Your task to perform on an android device: Go to accessibility settings Image 0: 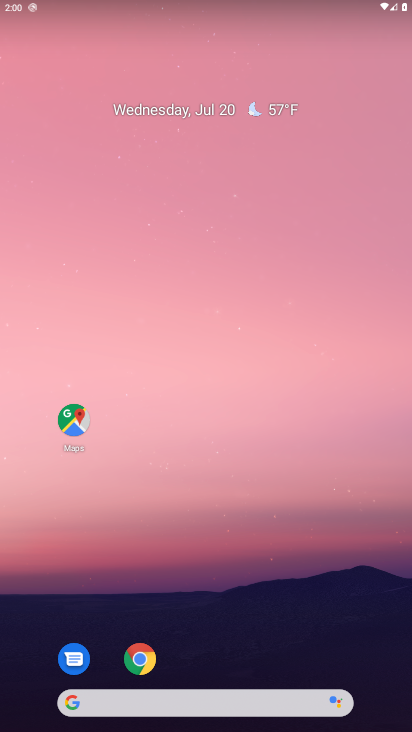
Step 0: drag from (49, 685) to (123, 127)
Your task to perform on an android device: Go to accessibility settings Image 1: 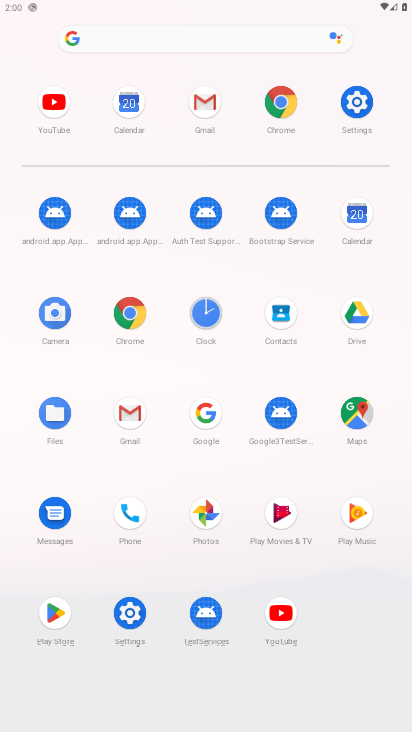
Step 1: click (135, 618)
Your task to perform on an android device: Go to accessibility settings Image 2: 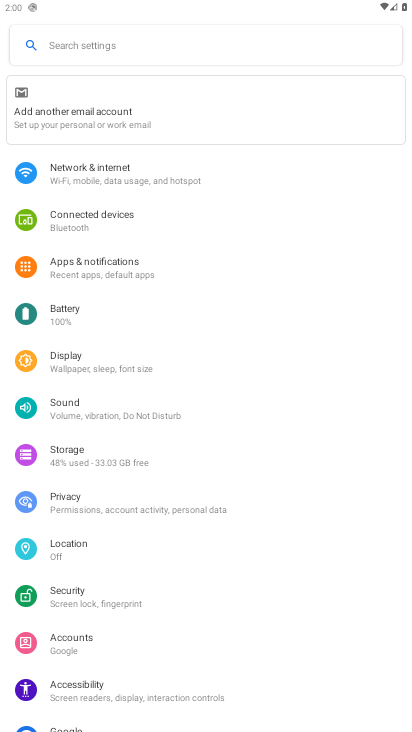
Step 2: click (94, 682)
Your task to perform on an android device: Go to accessibility settings Image 3: 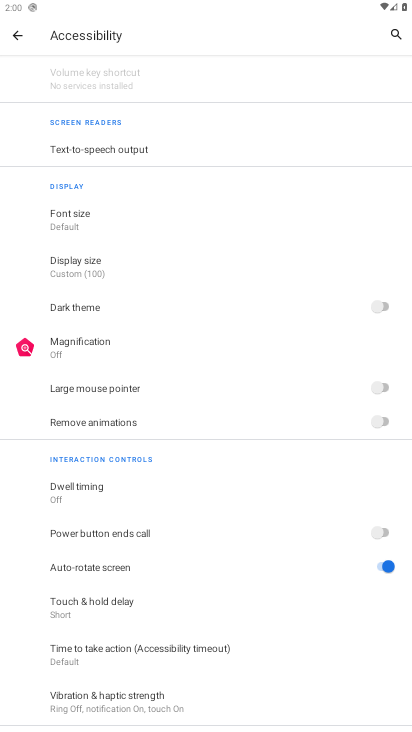
Step 3: task complete